Your task to perform on an android device: Open Maps and search for coffee Image 0: 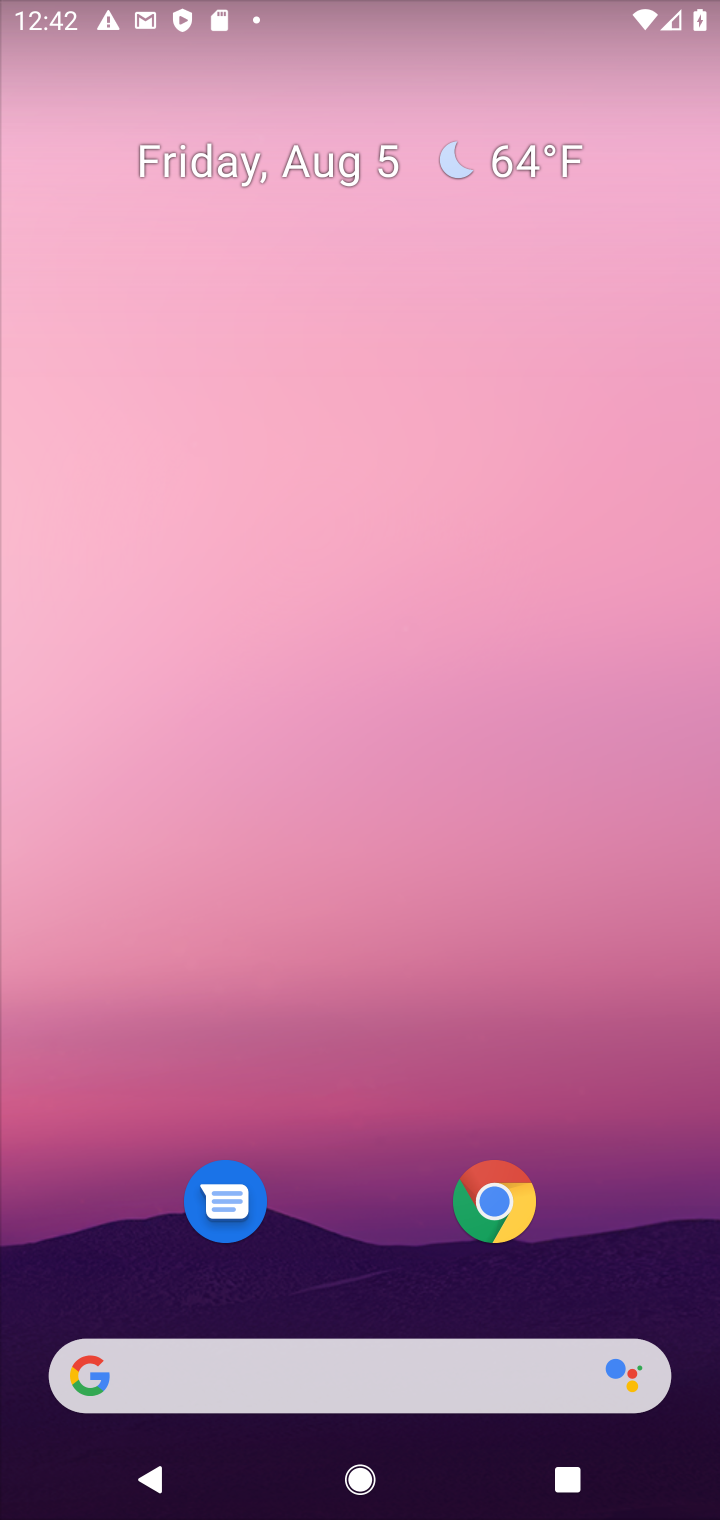
Step 0: drag from (614, 1258) to (459, 125)
Your task to perform on an android device: Open Maps and search for coffee Image 1: 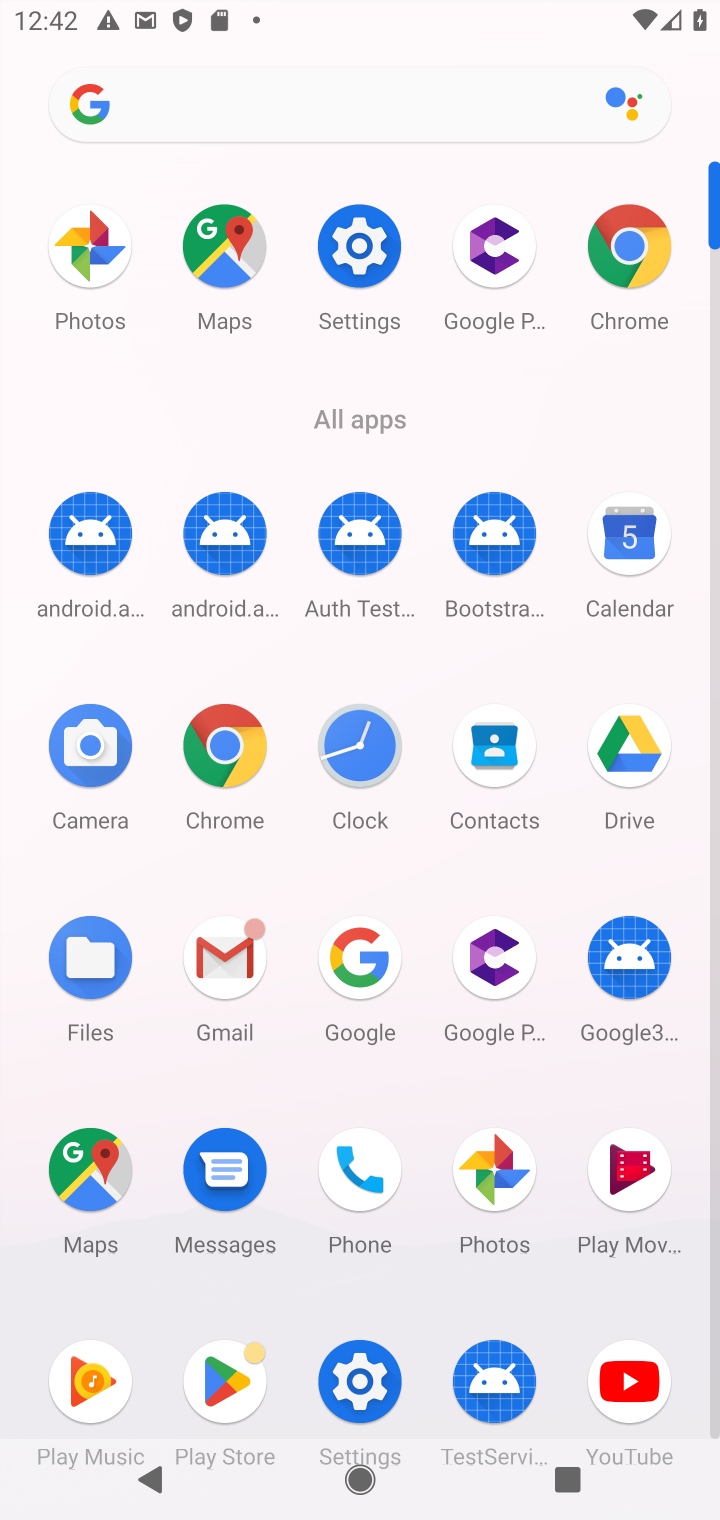
Step 1: click (91, 1197)
Your task to perform on an android device: Open Maps and search for coffee Image 2: 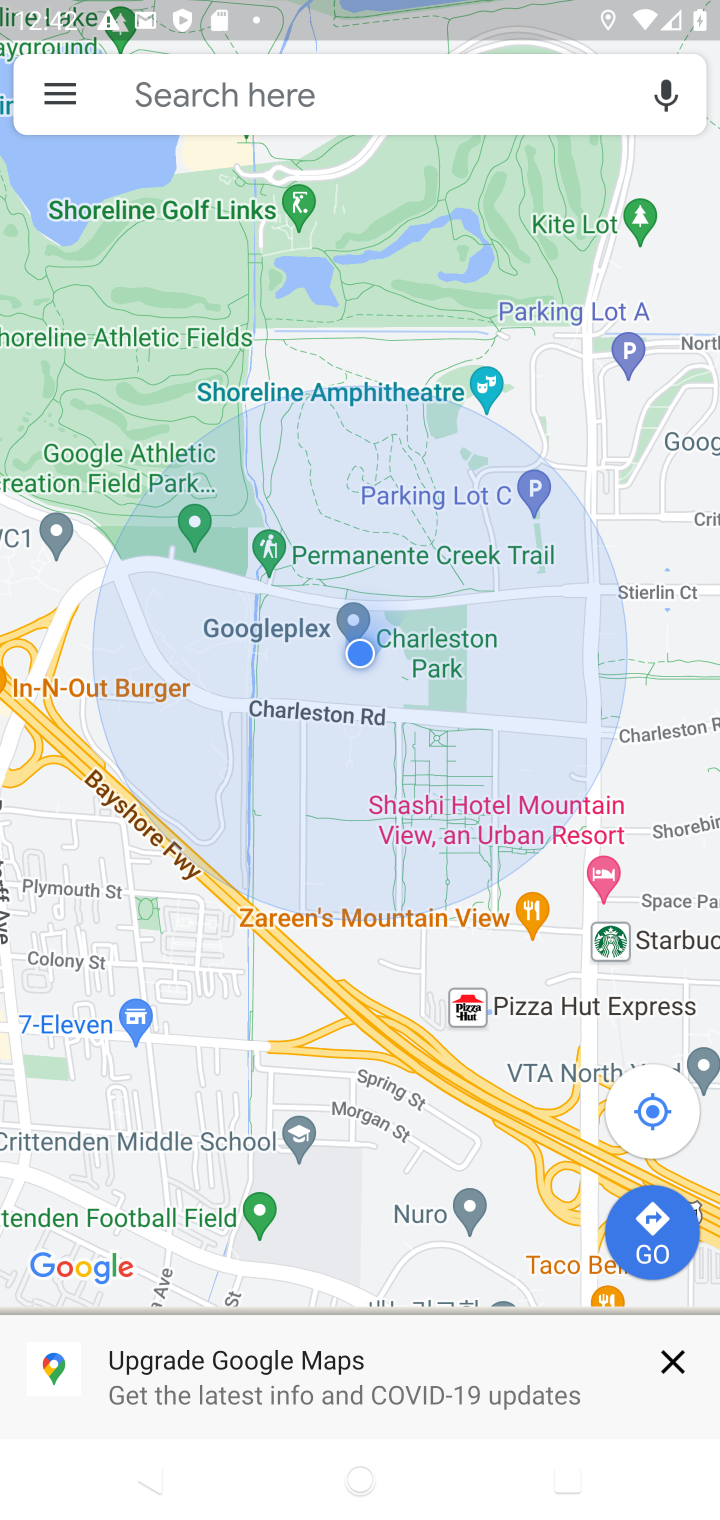
Step 2: click (318, 91)
Your task to perform on an android device: Open Maps and search for coffee Image 3: 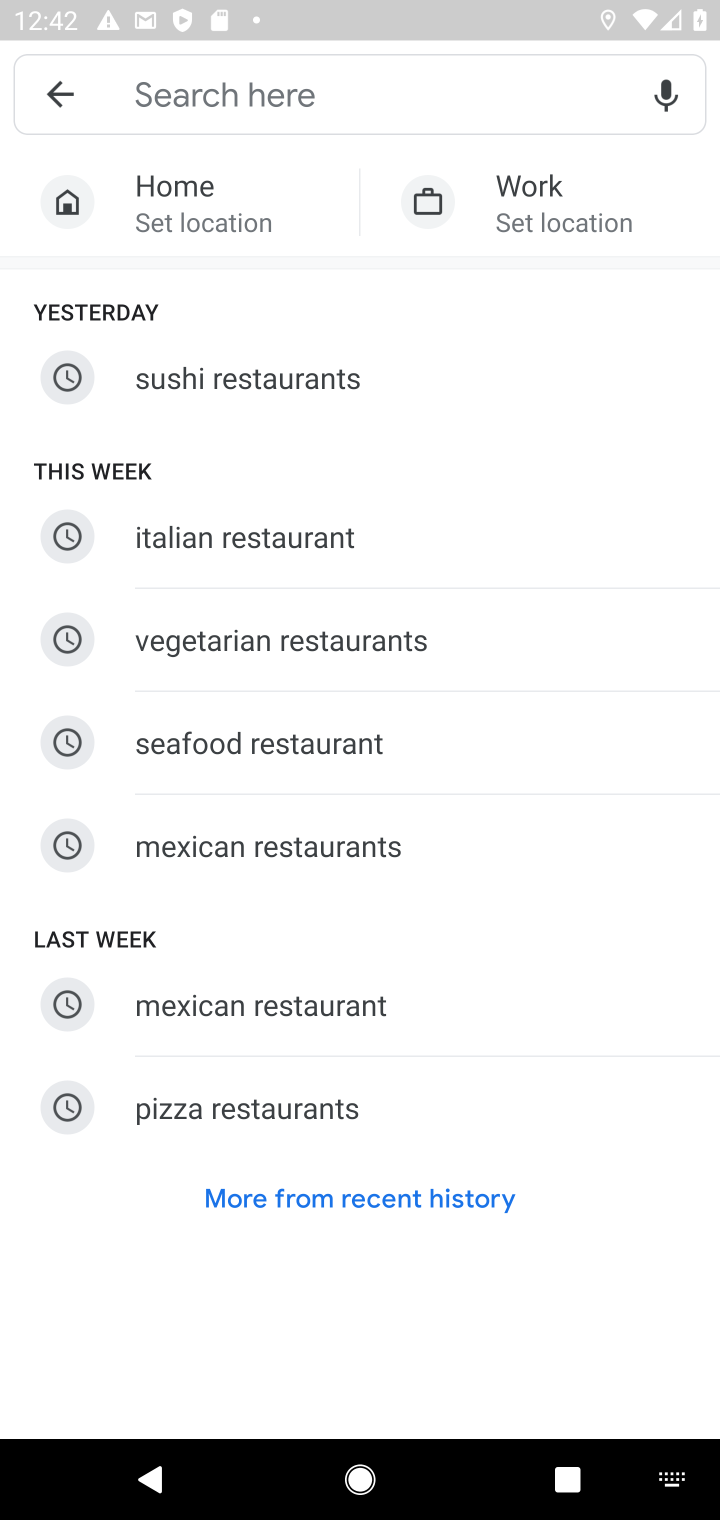
Step 3: type "coffee"
Your task to perform on an android device: Open Maps and search for coffee Image 4: 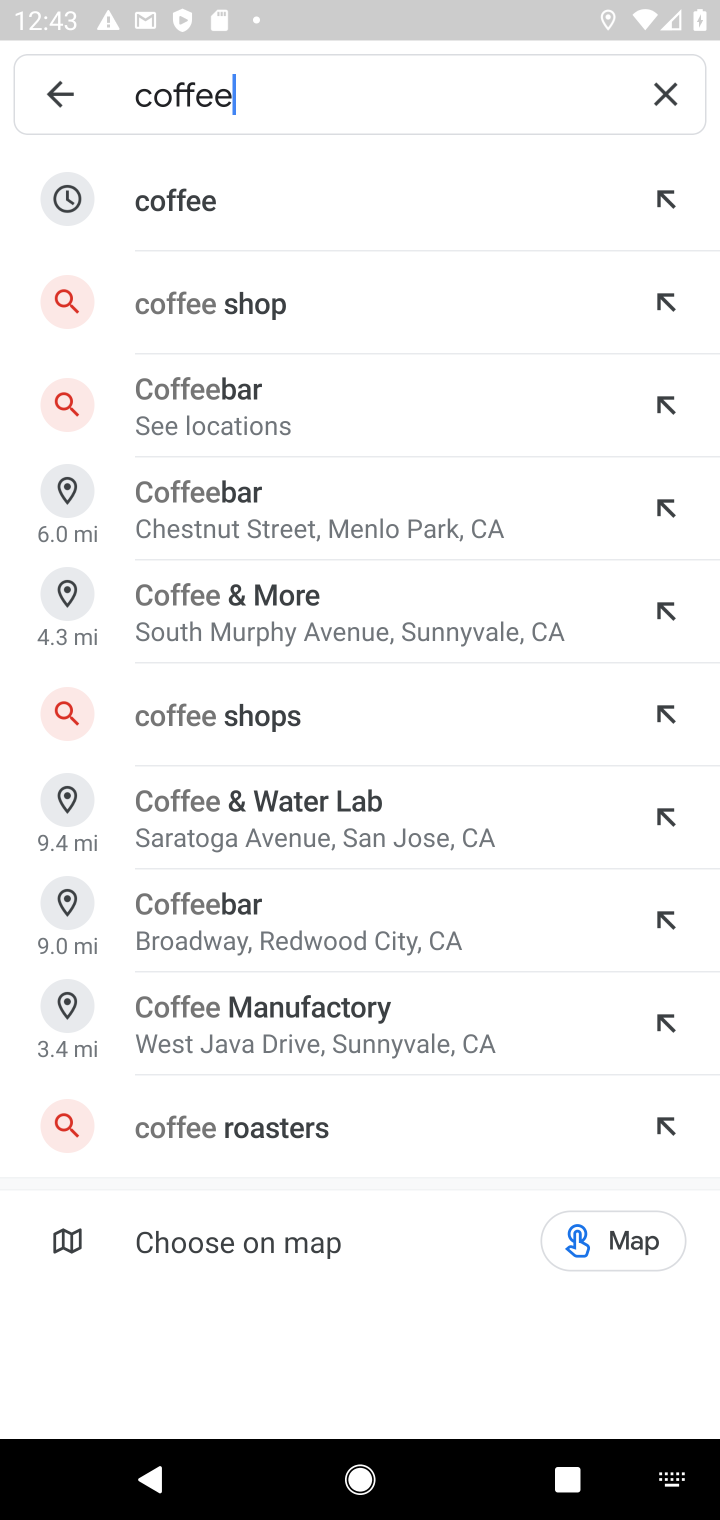
Step 4: click (296, 195)
Your task to perform on an android device: Open Maps and search for coffee Image 5: 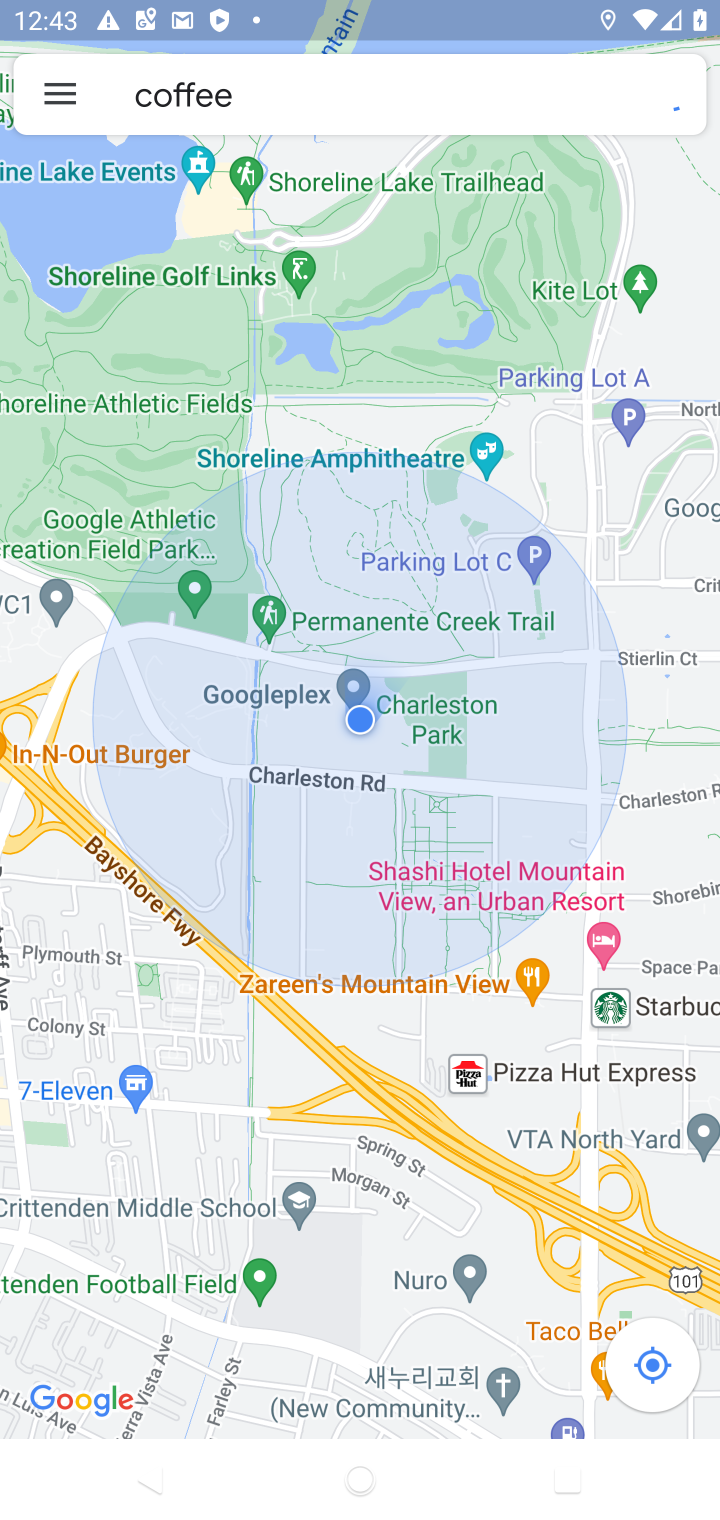
Step 5: task complete